Your task to perform on an android device: toggle airplane mode Image 0: 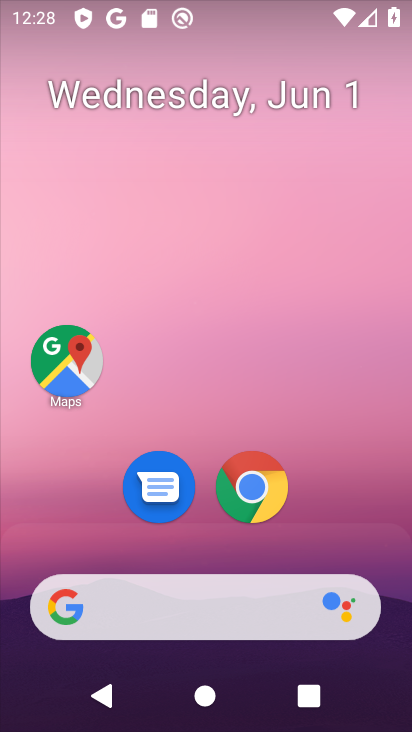
Step 0: drag from (305, 548) to (310, 212)
Your task to perform on an android device: toggle airplane mode Image 1: 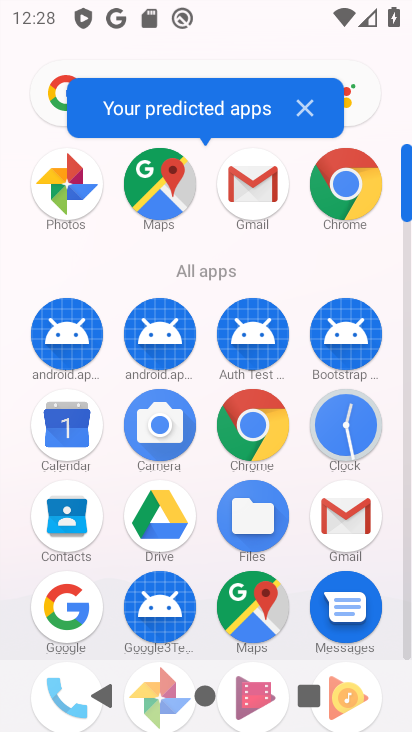
Step 1: drag from (199, 545) to (236, 290)
Your task to perform on an android device: toggle airplane mode Image 2: 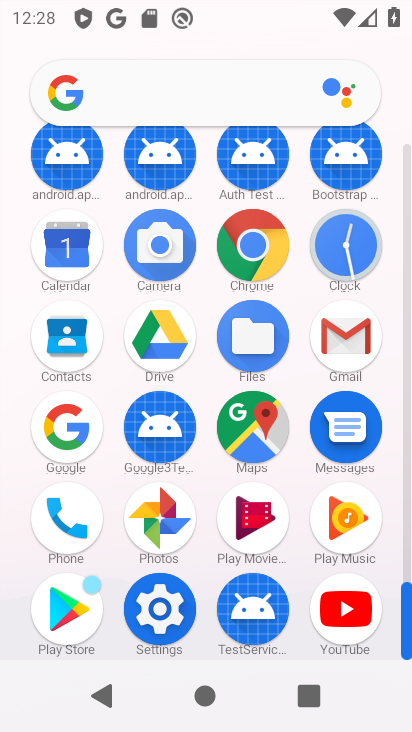
Step 2: click (158, 618)
Your task to perform on an android device: toggle airplane mode Image 3: 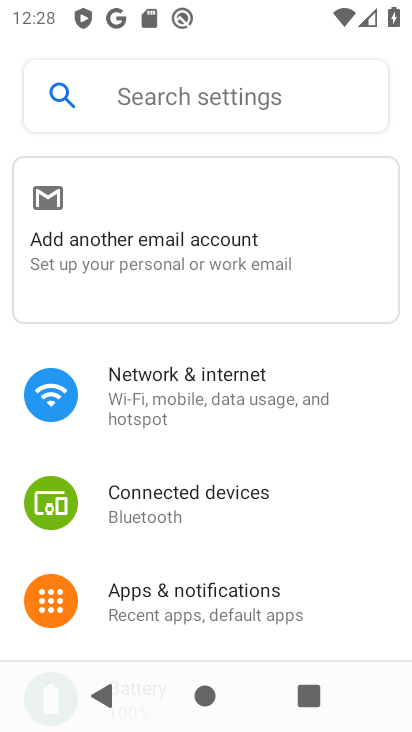
Step 3: click (147, 381)
Your task to perform on an android device: toggle airplane mode Image 4: 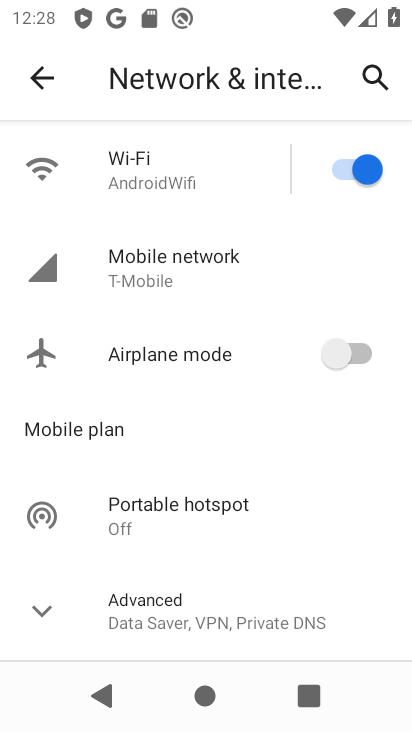
Step 4: click (340, 352)
Your task to perform on an android device: toggle airplane mode Image 5: 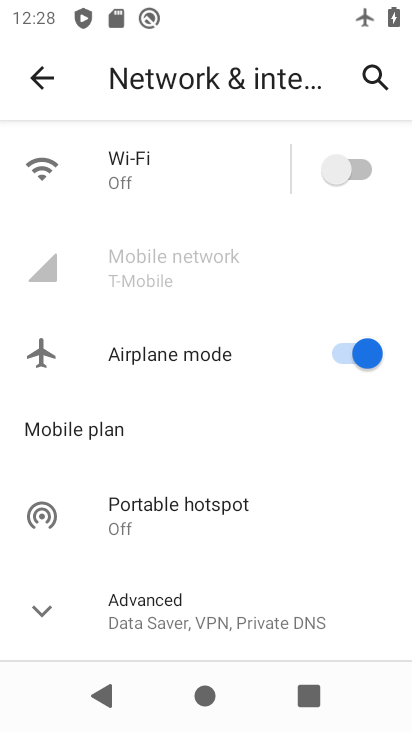
Step 5: task complete